Your task to perform on an android device: Open Amazon Image 0: 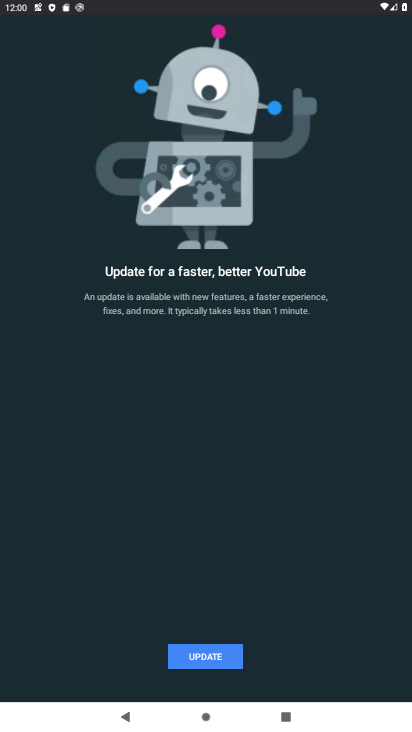
Step 0: press home button
Your task to perform on an android device: Open Amazon Image 1: 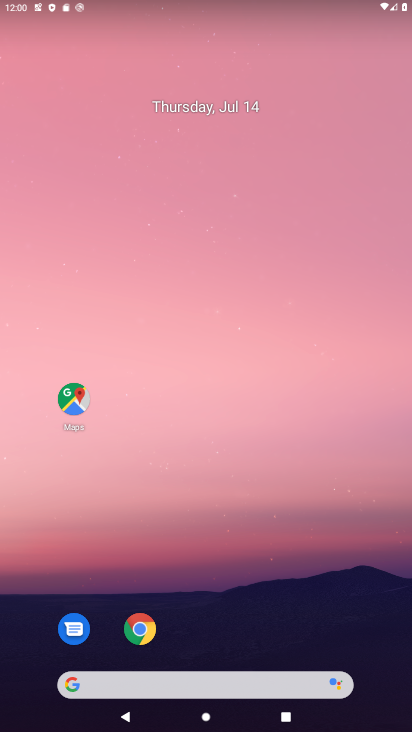
Step 1: click (146, 633)
Your task to perform on an android device: Open Amazon Image 2: 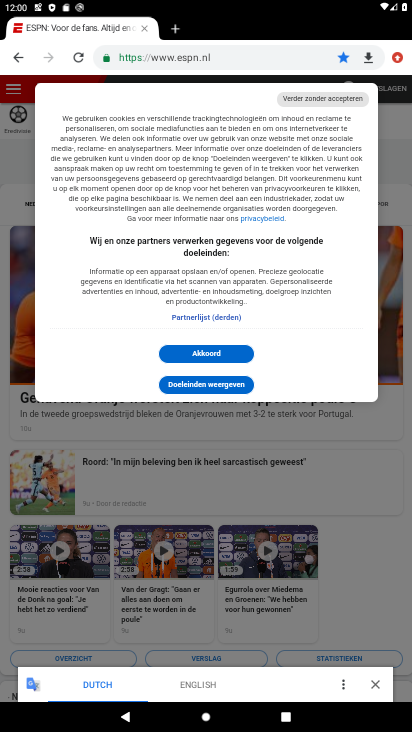
Step 2: click (175, 27)
Your task to perform on an android device: Open Amazon Image 3: 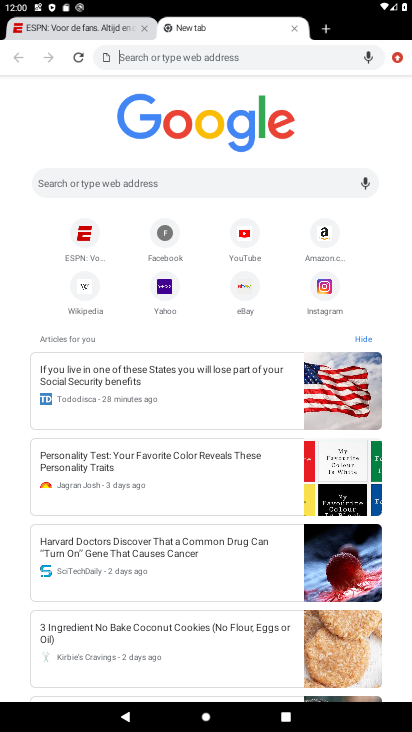
Step 3: click (325, 234)
Your task to perform on an android device: Open Amazon Image 4: 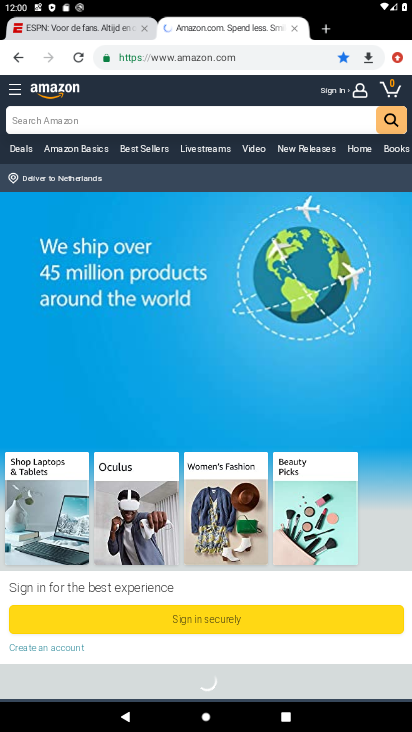
Step 4: task complete